Your task to perform on an android device: open app "HBO Max: Stream TV & Movies" (install if not already installed), go to login, and select forgot password Image 0: 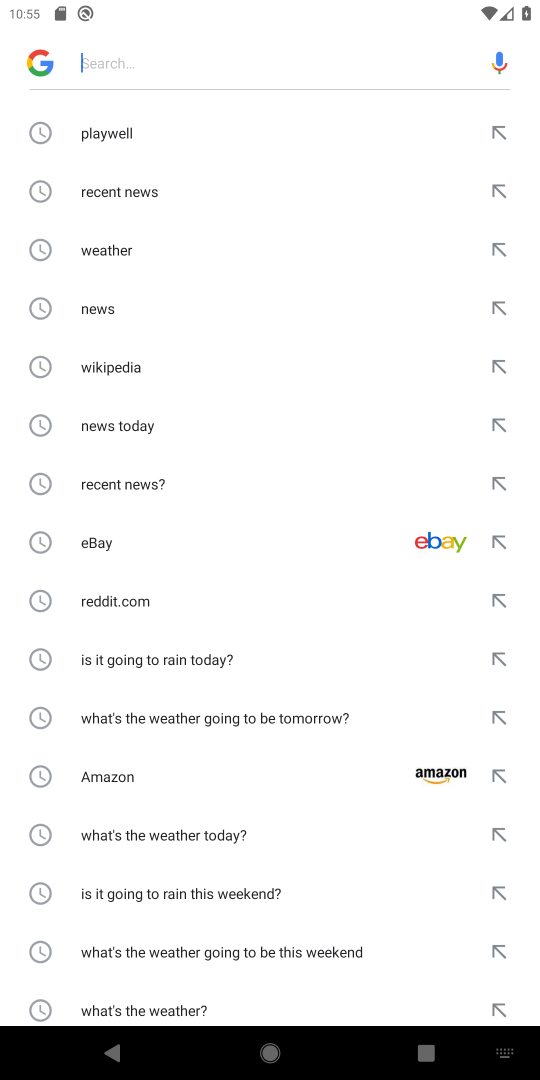
Step 0: press home button
Your task to perform on an android device: open app "HBO Max: Stream TV & Movies" (install if not already installed), go to login, and select forgot password Image 1: 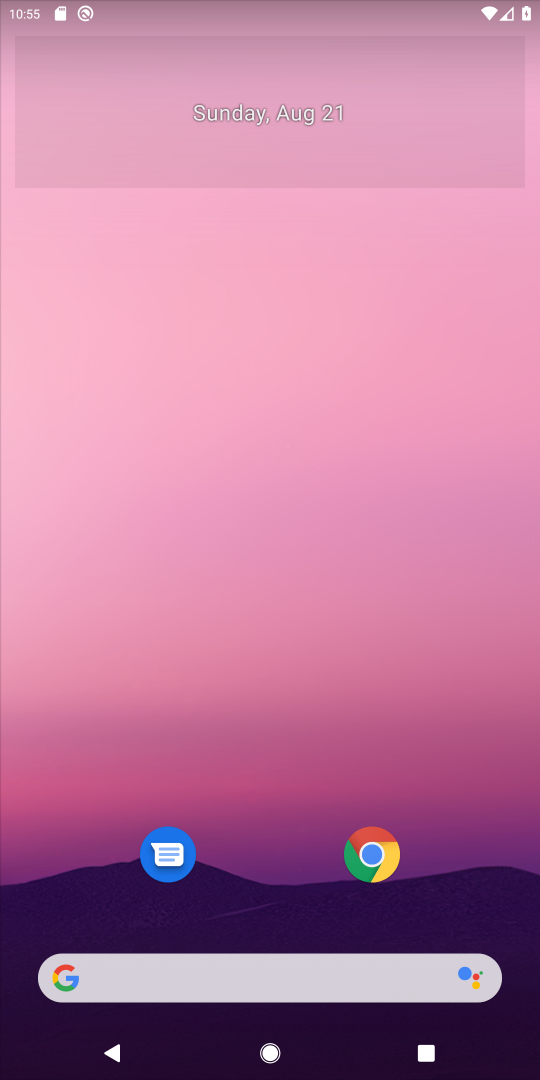
Step 1: drag from (268, 941) to (273, 68)
Your task to perform on an android device: open app "HBO Max: Stream TV & Movies" (install if not already installed), go to login, and select forgot password Image 2: 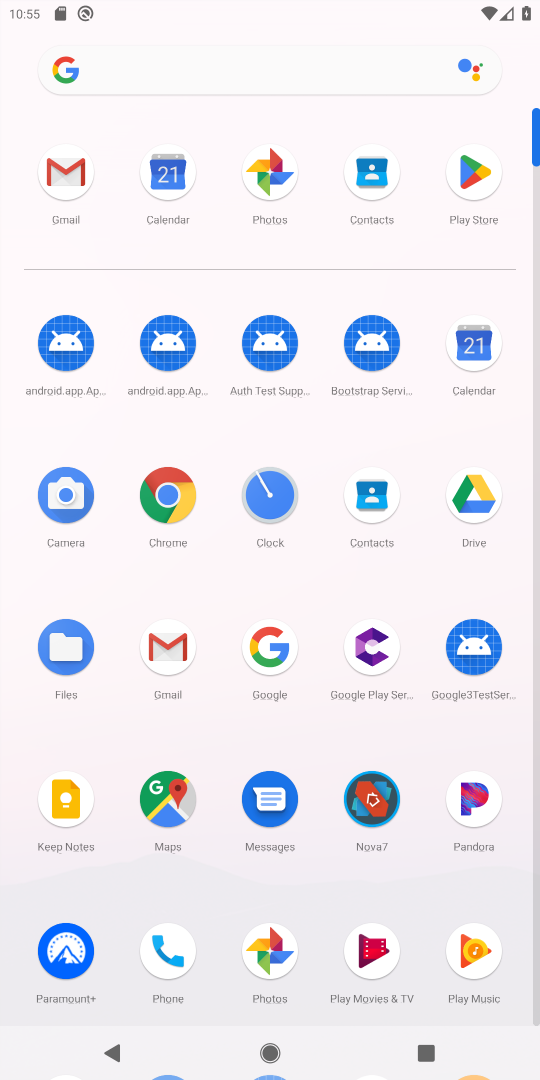
Step 2: click (479, 169)
Your task to perform on an android device: open app "HBO Max: Stream TV & Movies" (install if not already installed), go to login, and select forgot password Image 3: 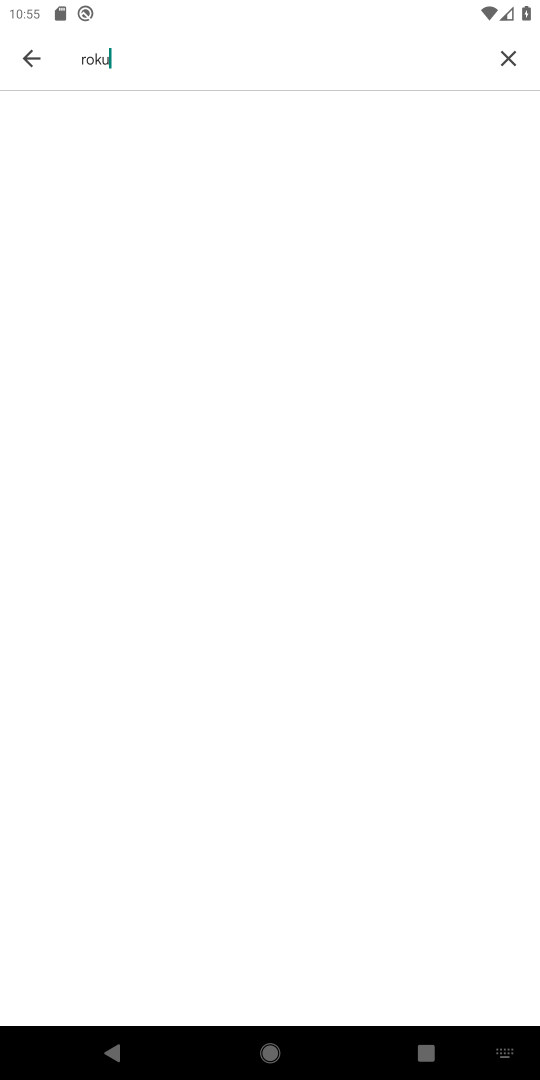
Step 3: click (510, 55)
Your task to perform on an android device: open app "HBO Max: Stream TV & Movies" (install if not already installed), go to login, and select forgot password Image 4: 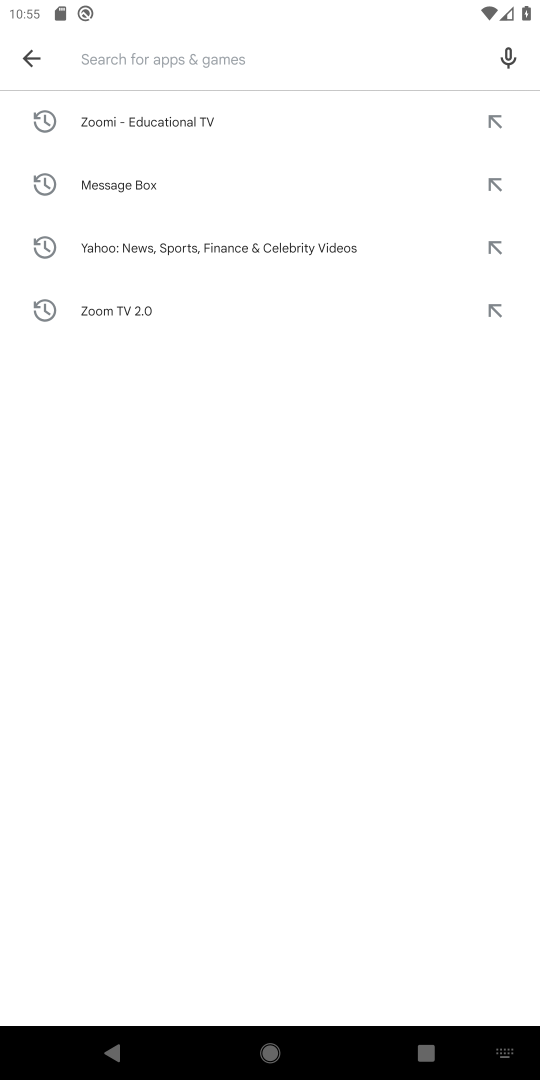
Step 4: type "h bo"
Your task to perform on an android device: open app "HBO Max: Stream TV & Movies" (install if not already installed), go to login, and select forgot password Image 5: 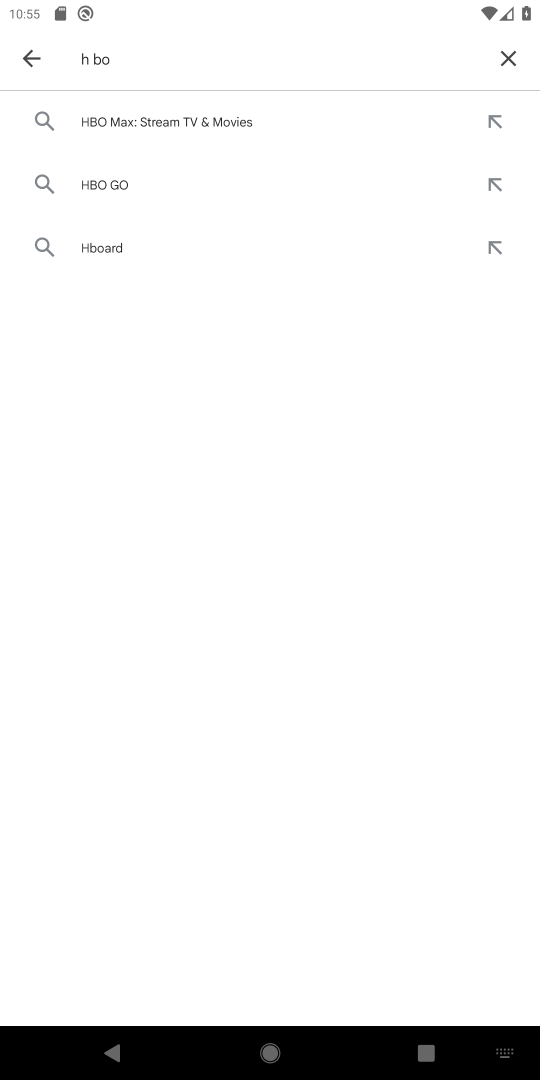
Step 5: click (277, 106)
Your task to perform on an android device: open app "HBO Max: Stream TV & Movies" (install if not already installed), go to login, and select forgot password Image 6: 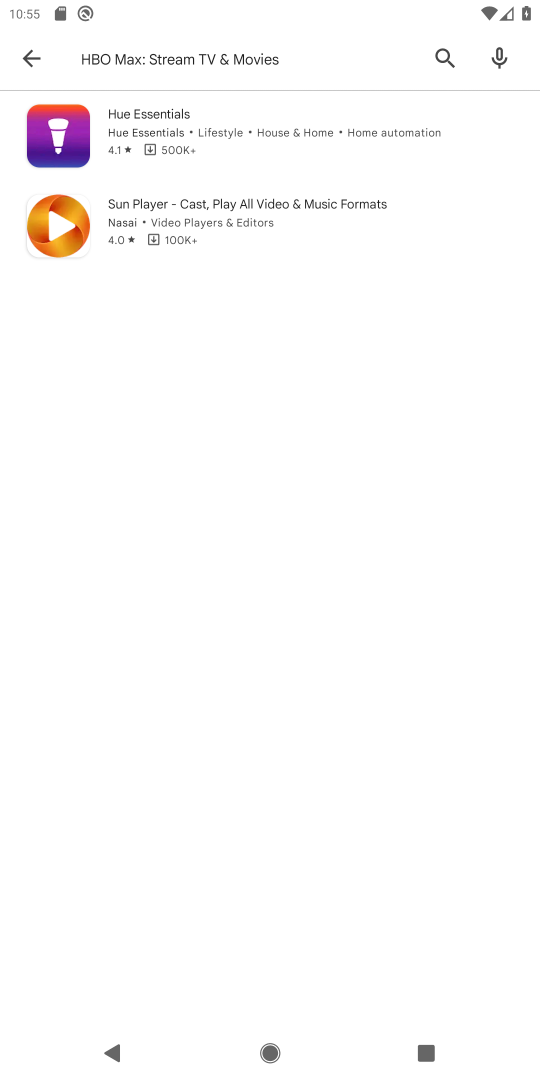
Step 6: task complete